Your task to perform on an android device: Google the capital of Chile Image 0: 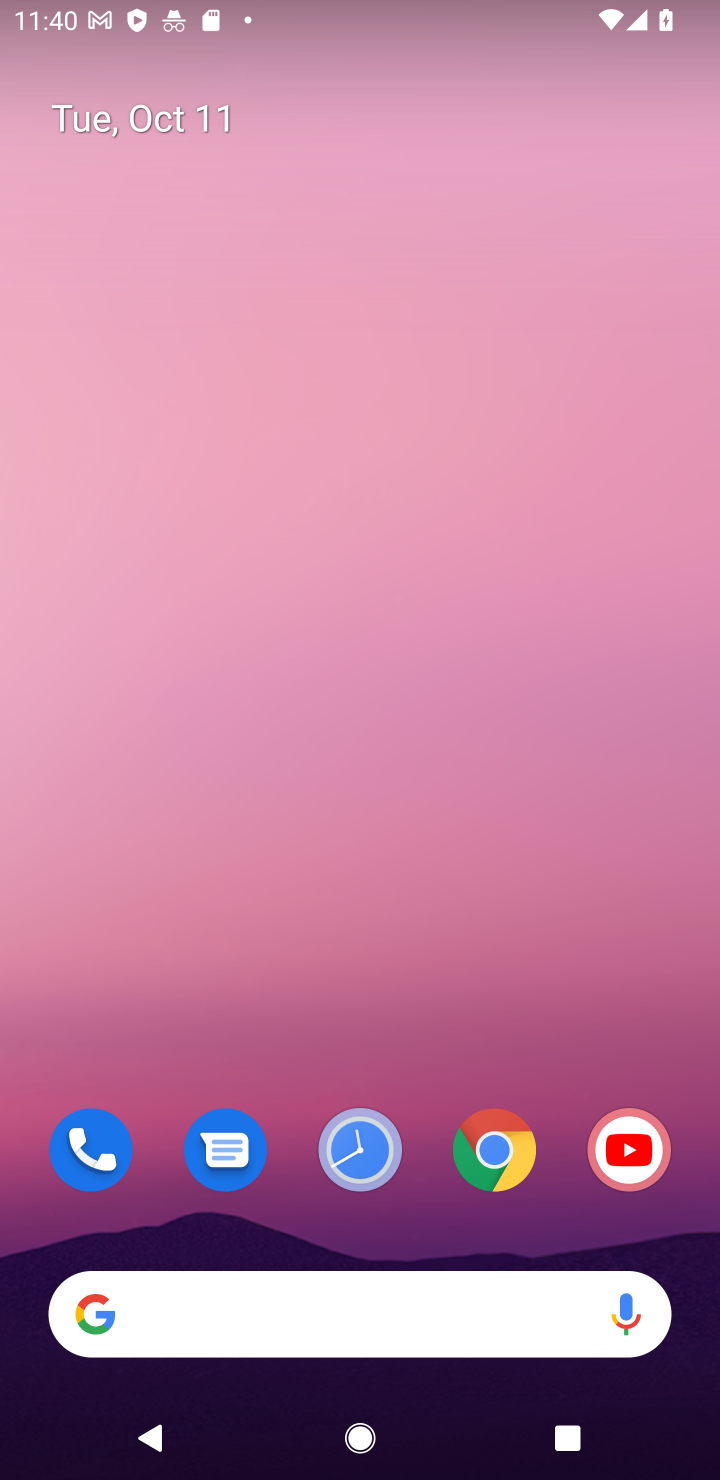
Step 0: click (409, 1315)
Your task to perform on an android device: Google the capital of Chile Image 1: 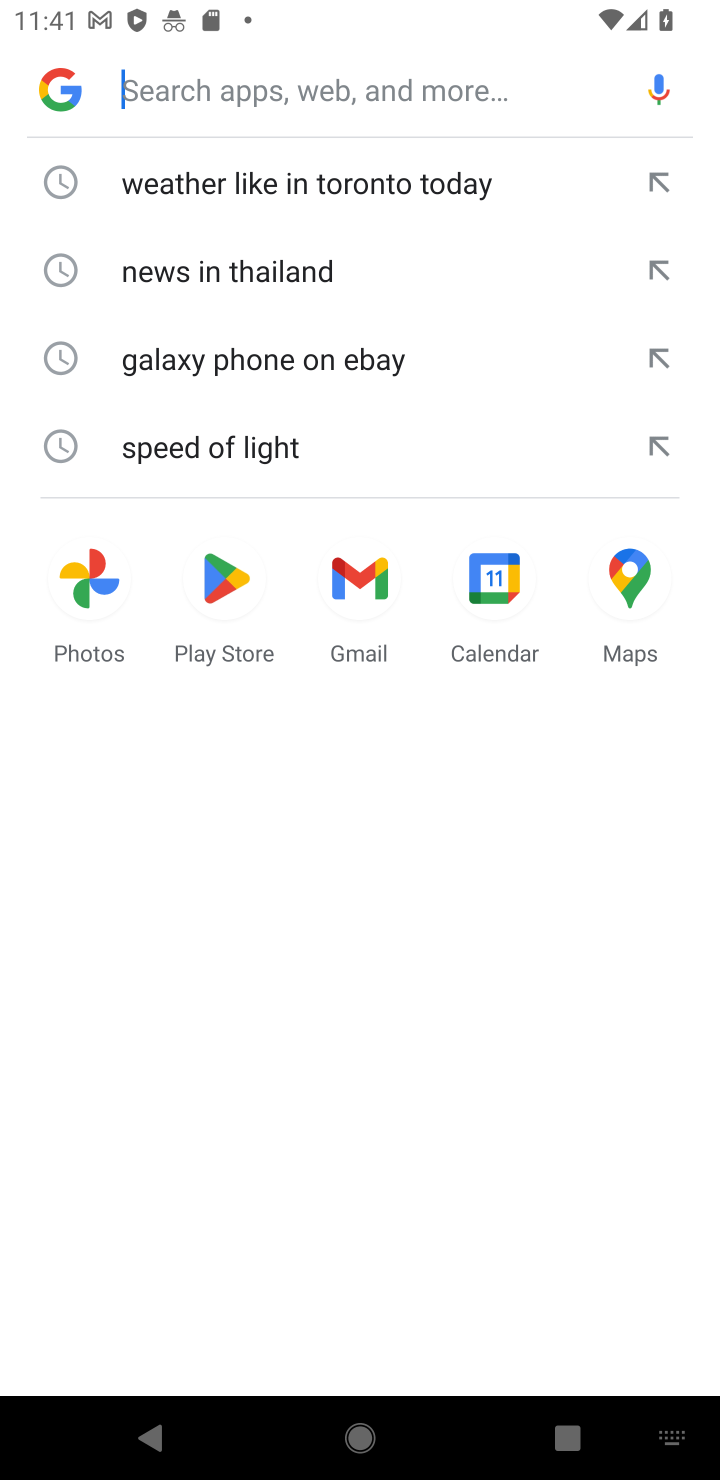
Step 1: type "capital of chile"
Your task to perform on an android device: Google the capital of Chile Image 2: 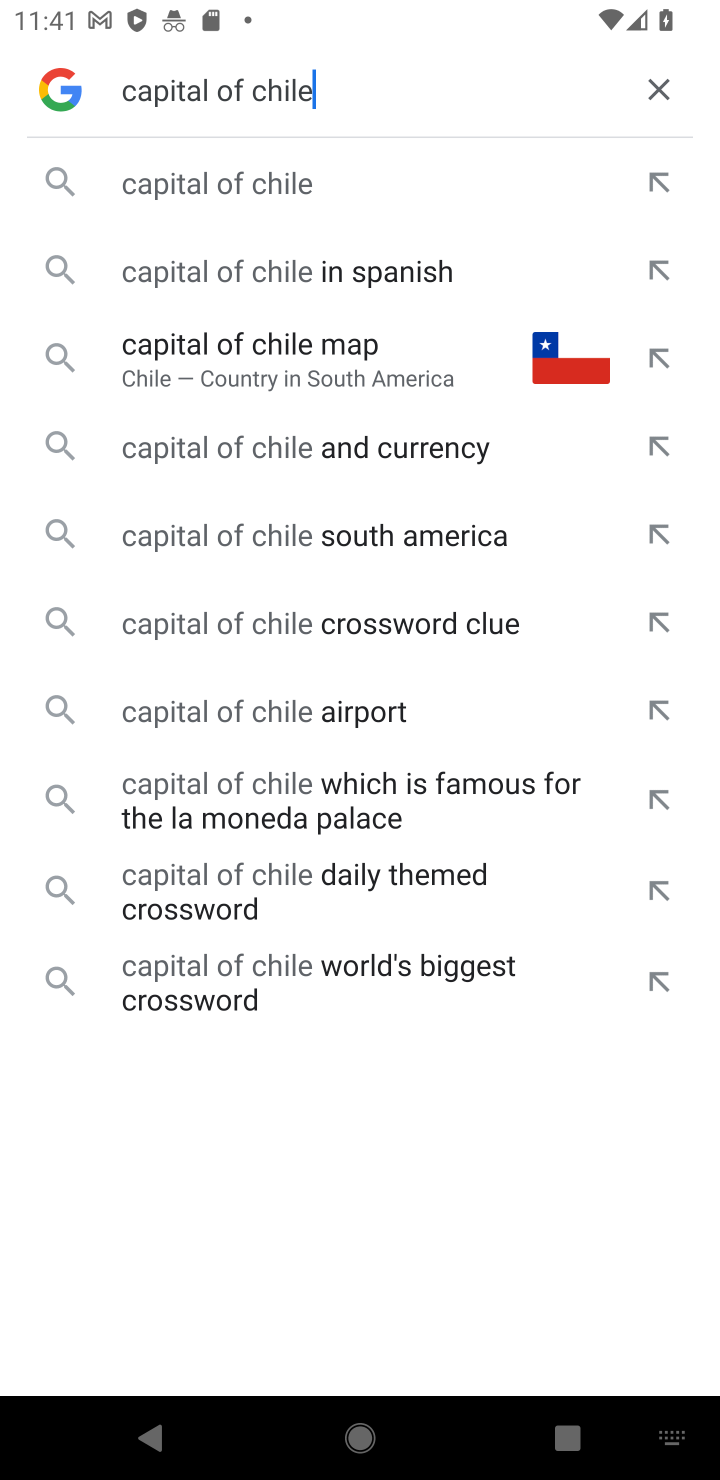
Step 2: click (234, 176)
Your task to perform on an android device: Google the capital of Chile Image 3: 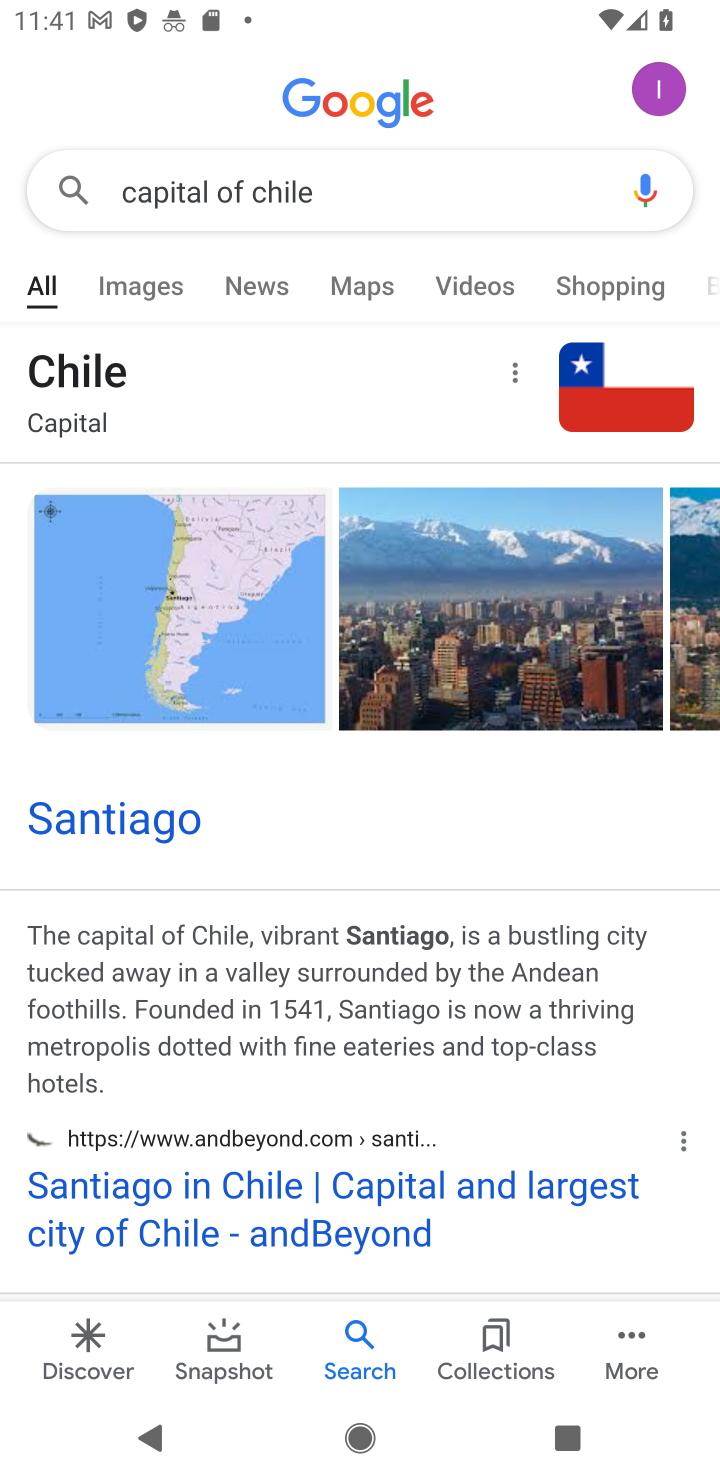
Step 3: task complete